Your task to perform on an android device: open app "DoorDash - Dasher" Image 0: 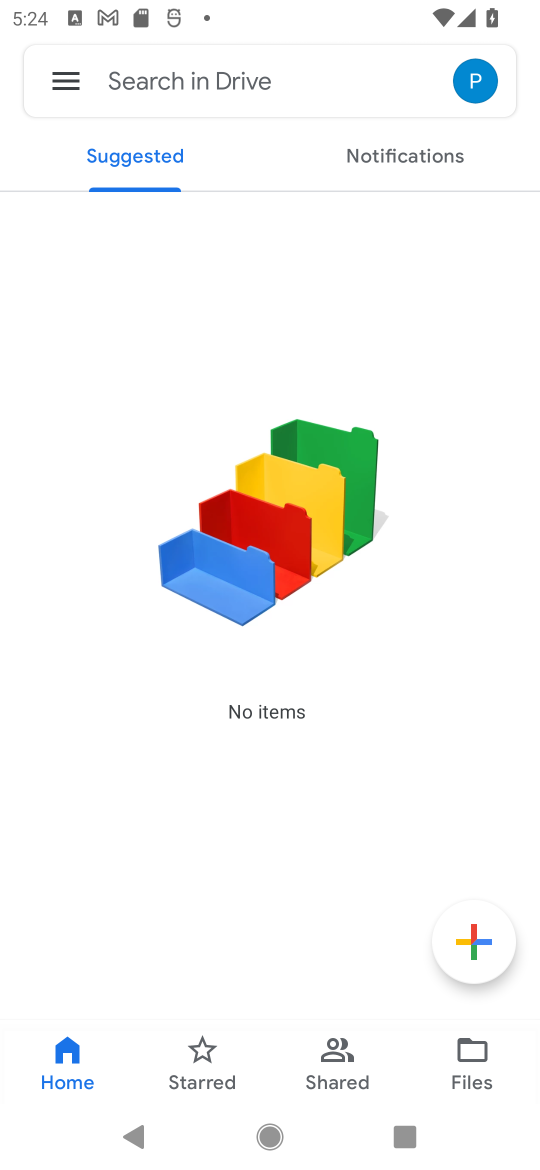
Step 0: press home button
Your task to perform on an android device: open app "DoorDash - Dasher" Image 1: 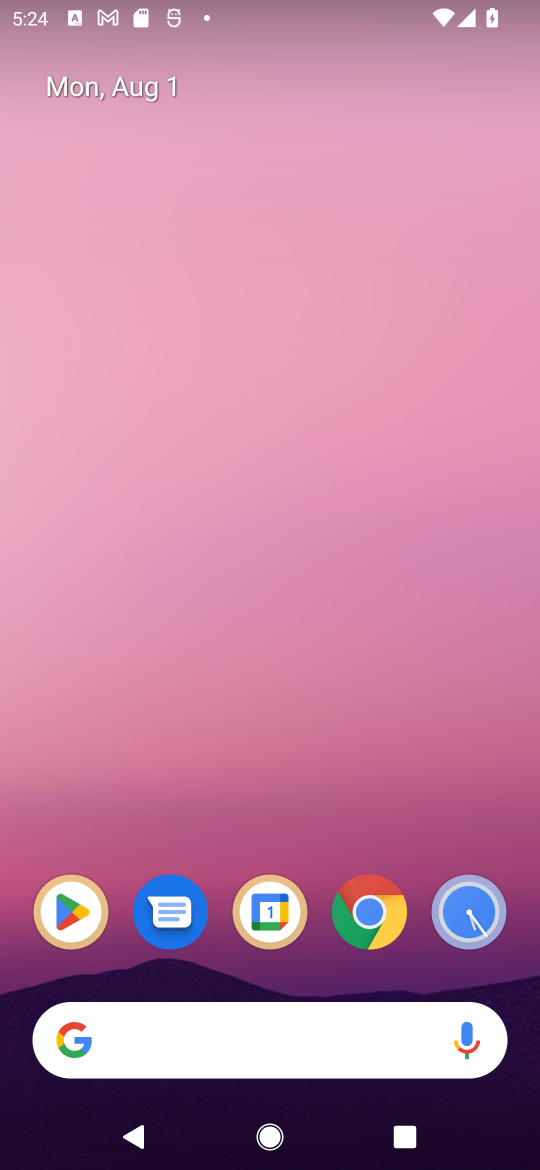
Step 1: press home button
Your task to perform on an android device: open app "DoorDash - Dasher" Image 2: 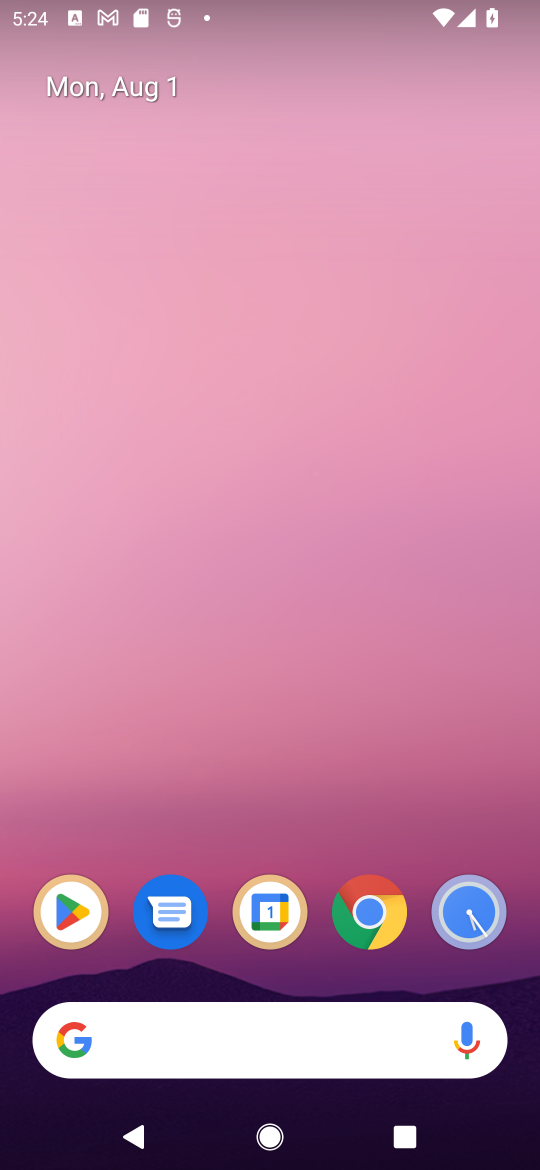
Step 2: click (81, 924)
Your task to perform on an android device: open app "DoorDash - Dasher" Image 3: 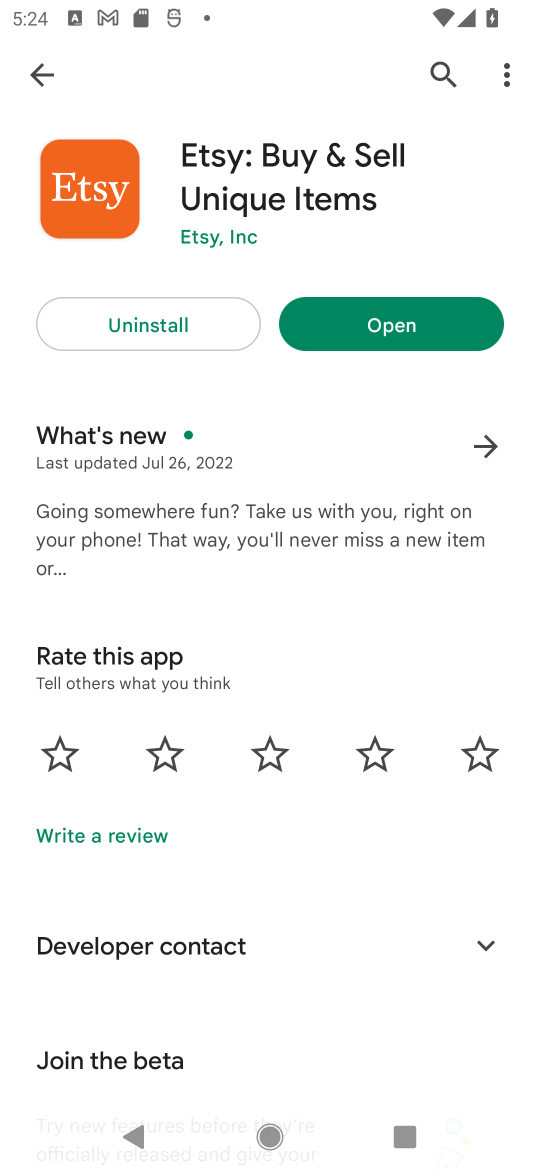
Step 3: click (436, 79)
Your task to perform on an android device: open app "DoorDash - Dasher" Image 4: 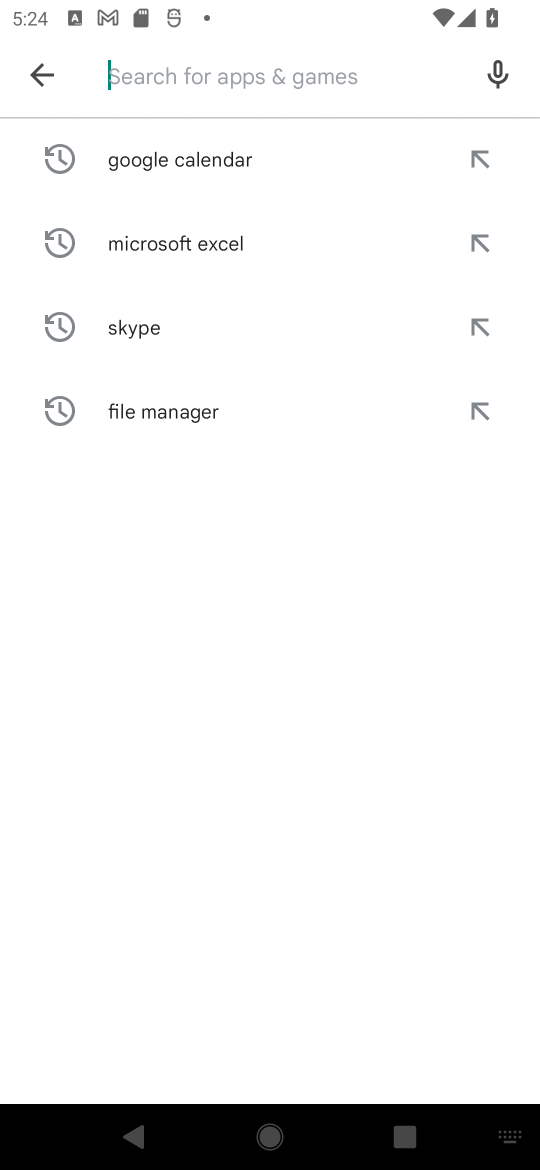
Step 4: type "DoorDash - Dasher"
Your task to perform on an android device: open app "DoorDash - Dasher" Image 5: 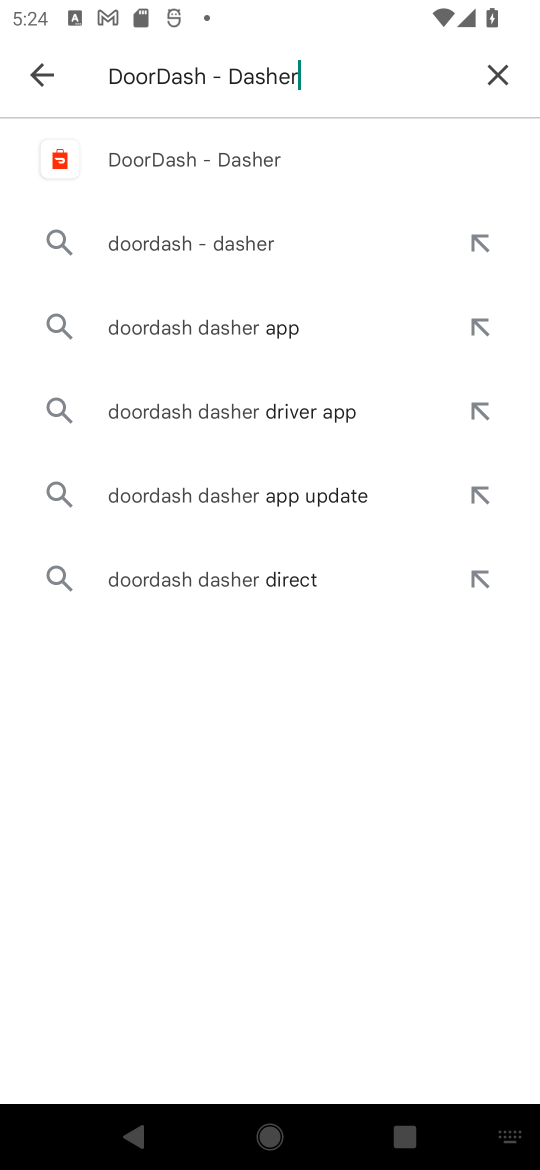
Step 5: click (181, 172)
Your task to perform on an android device: open app "DoorDash - Dasher" Image 6: 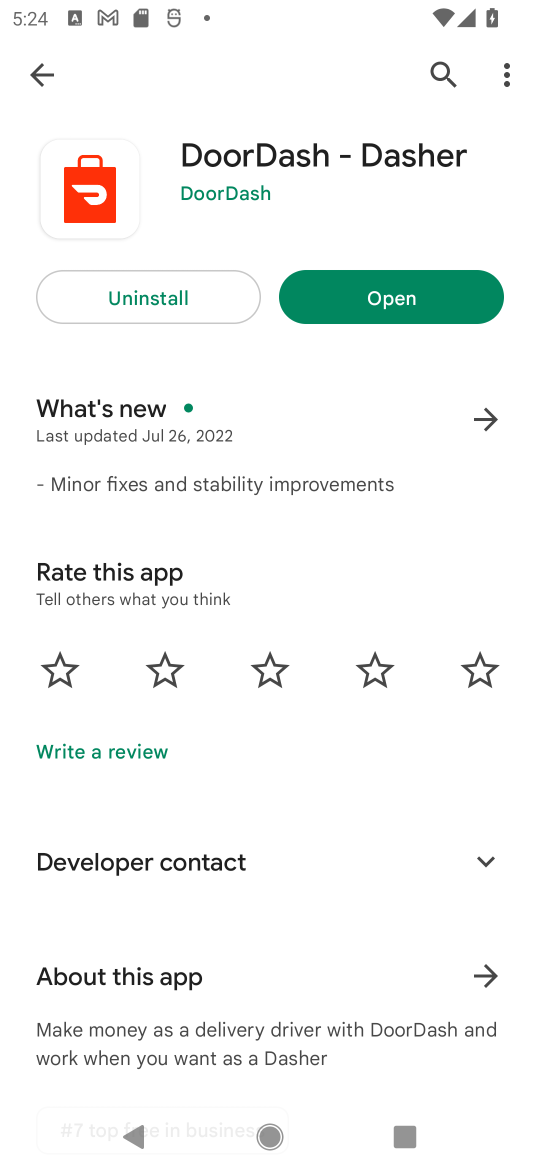
Step 6: click (378, 300)
Your task to perform on an android device: open app "DoorDash - Dasher" Image 7: 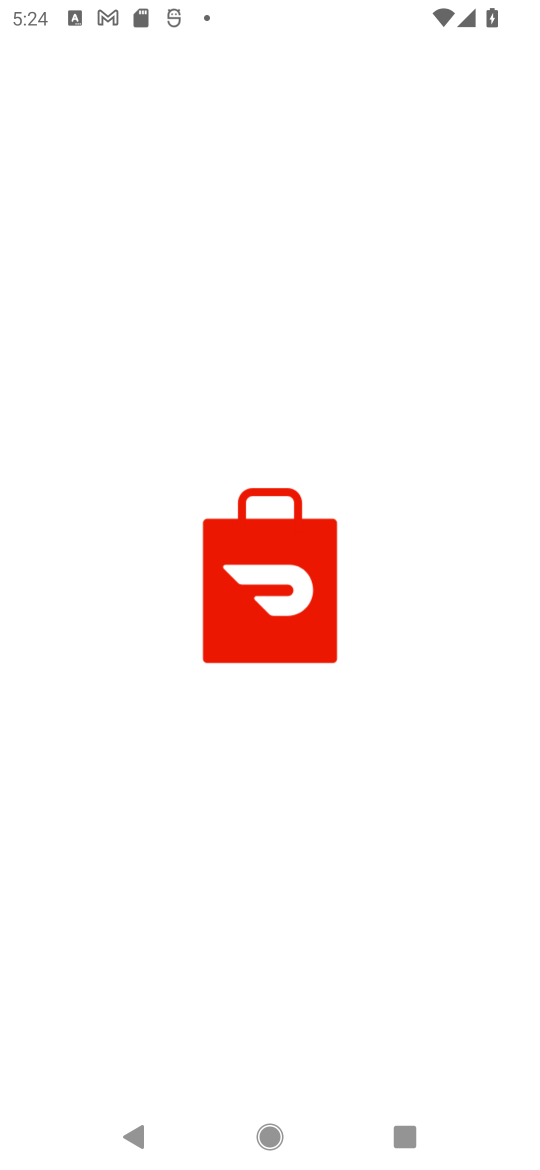
Step 7: task complete